Your task to perform on an android device: Go to CNN.com Image 0: 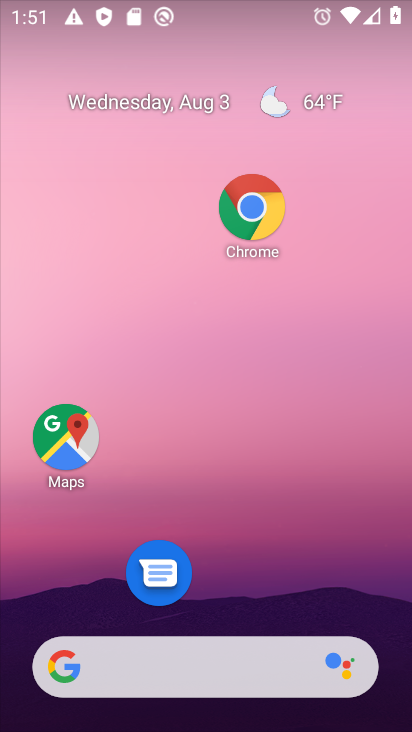
Step 0: drag from (196, 641) to (279, 116)
Your task to perform on an android device: Go to CNN.com Image 1: 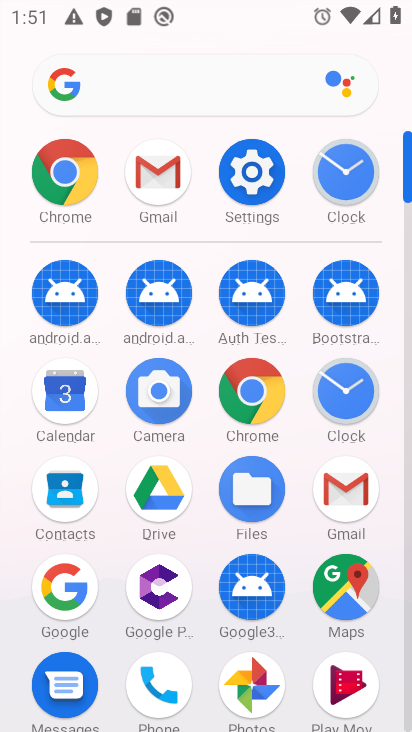
Step 1: click (262, 407)
Your task to perform on an android device: Go to CNN.com Image 2: 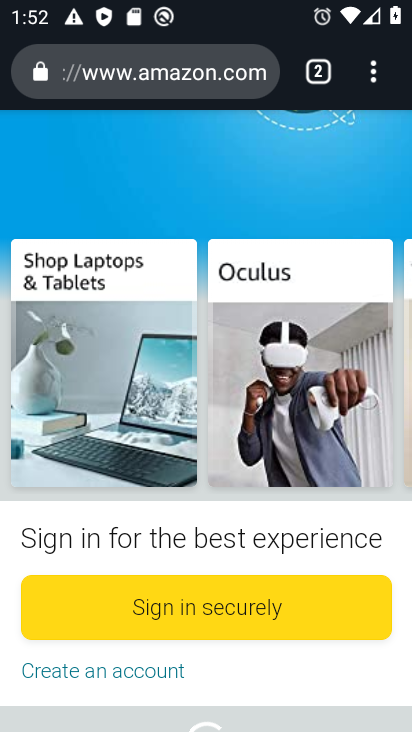
Step 2: click (194, 62)
Your task to perform on an android device: Go to CNN.com Image 3: 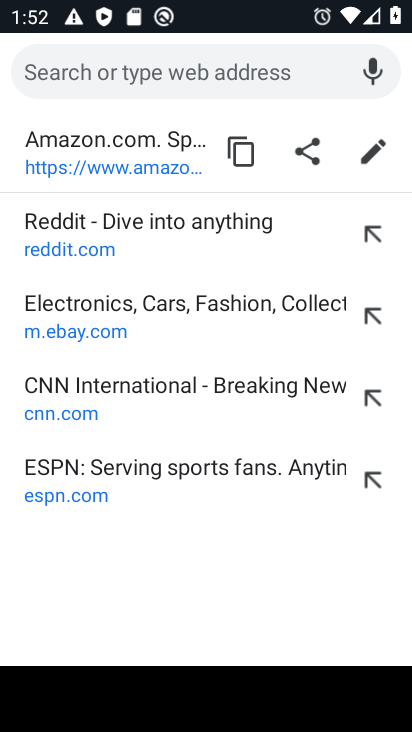
Step 3: click (118, 412)
Your task to perform on an android device: Go to CNN.com Image 4: 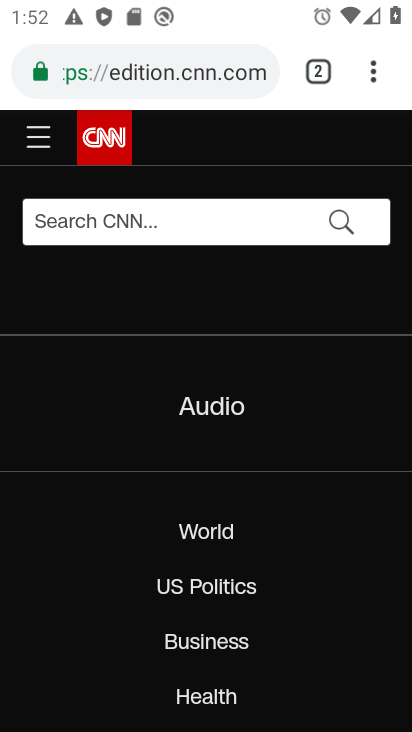
Step 4: task complete